Your task to perform on an android device: snooze an email in the gmail app Image 0: 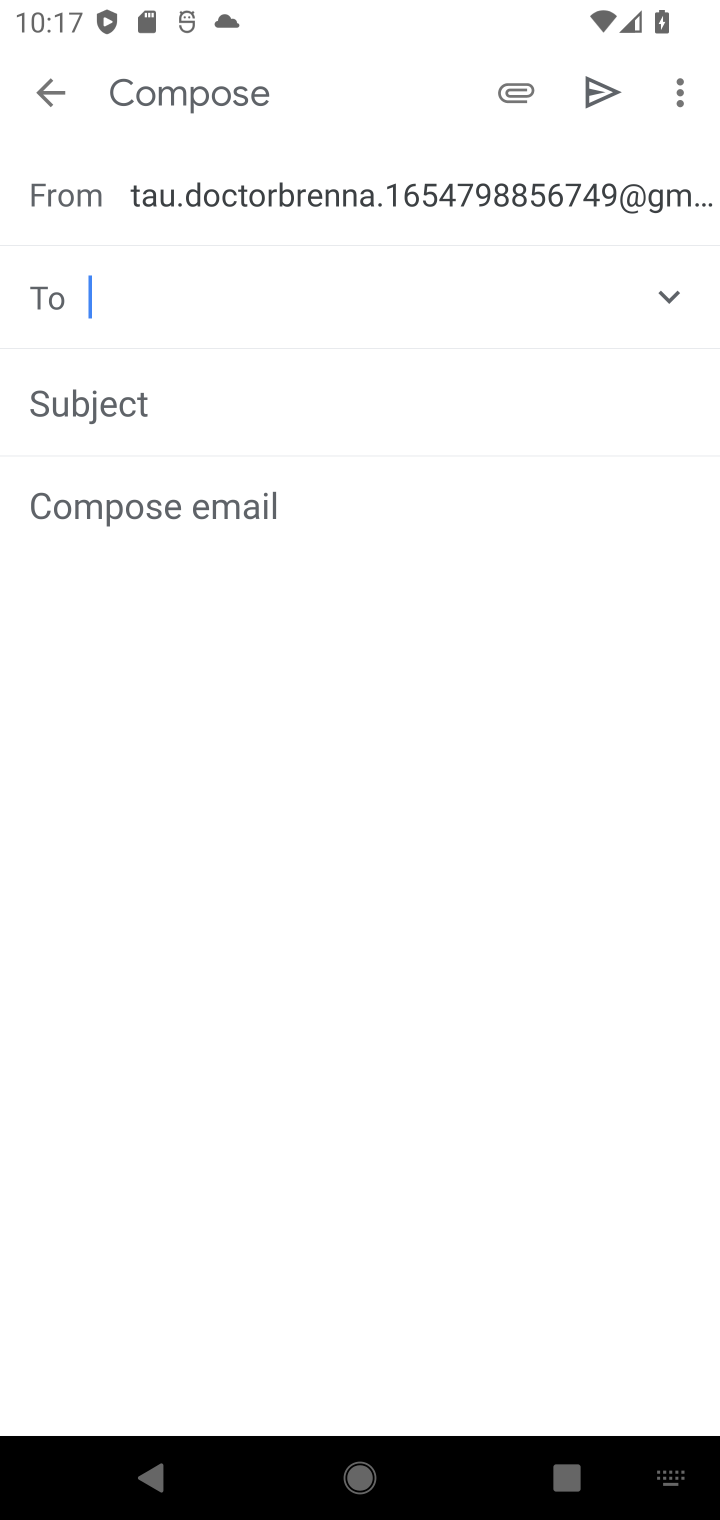
Step 0: press home button
Your task to perform on an android device: snooze an email in the gmail app Image 1: 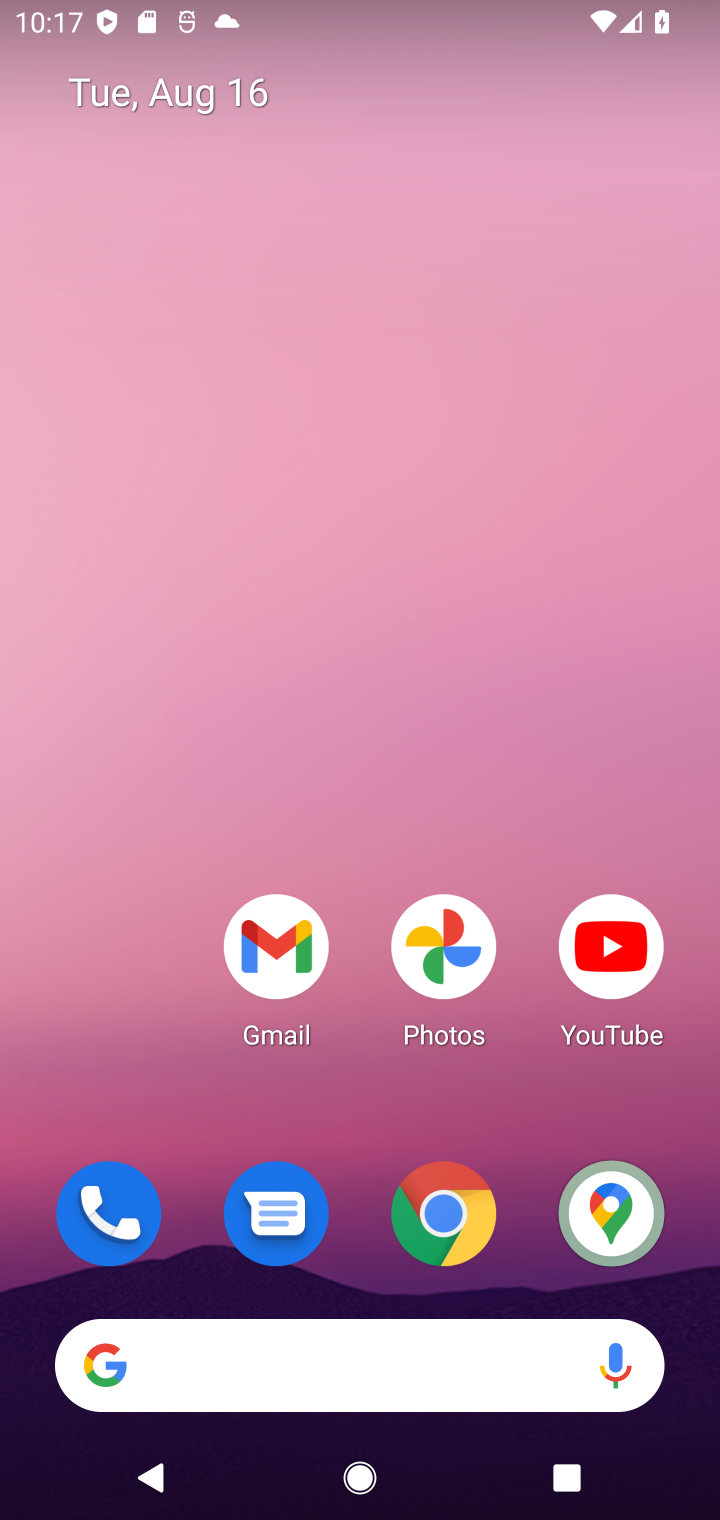
Step 1: drag from (285, 1220) to (276, 0)
Your task to perform on an android device: snooze an email in the gmail app Image 2: 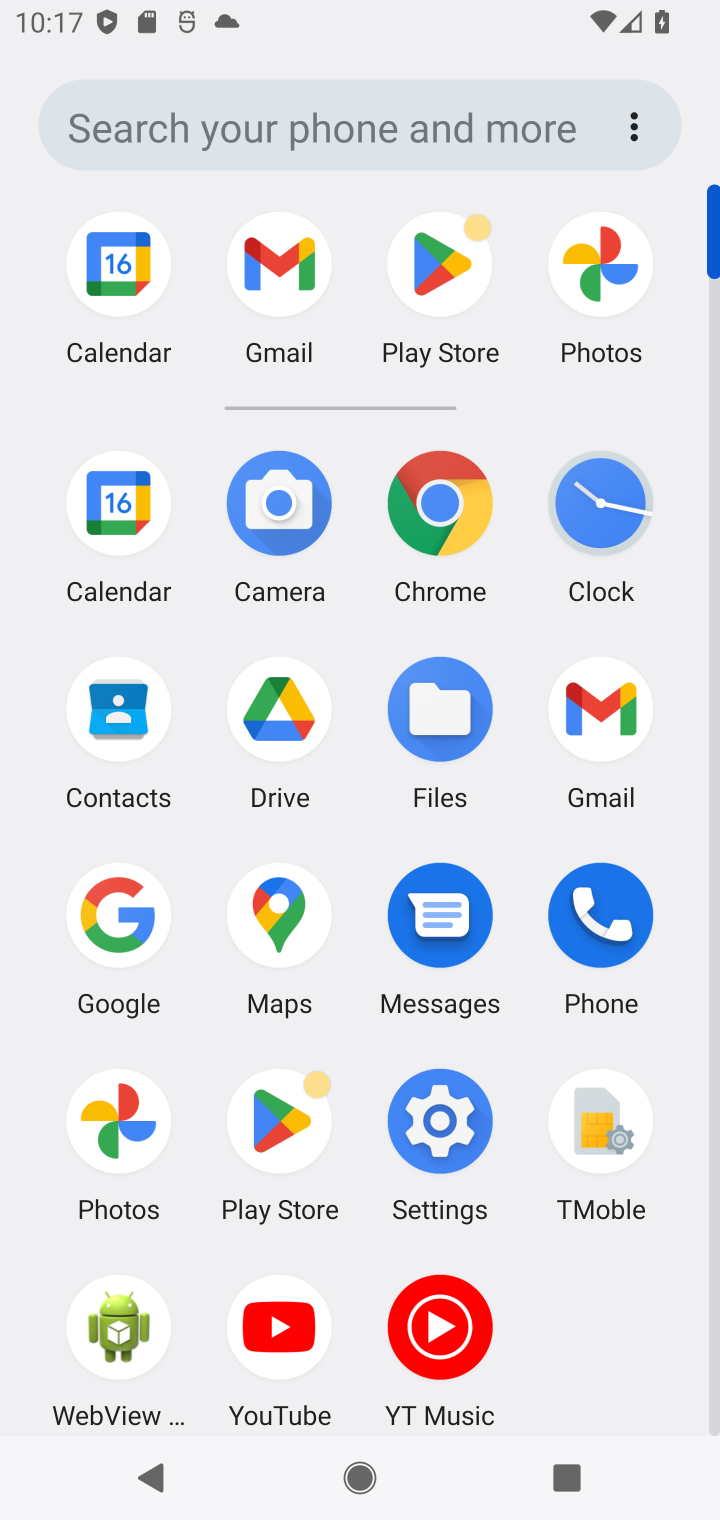
Step 2: click (616, 697)
Your task to perform on an android device: snooze an email in the gmail app Image 3: 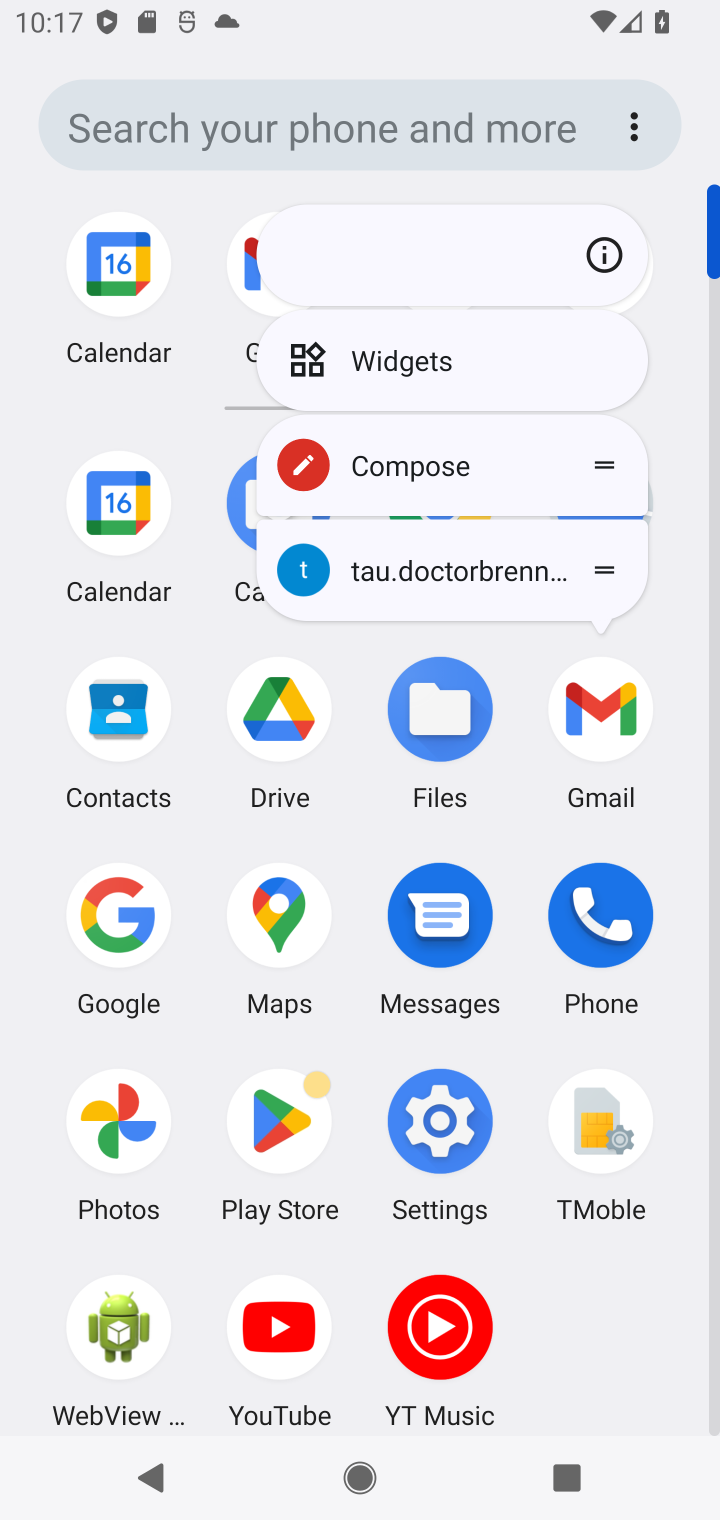
Step 3: click (621, 706)
Your task to perform on an android device: snooze an email in the gmail app Image 4: 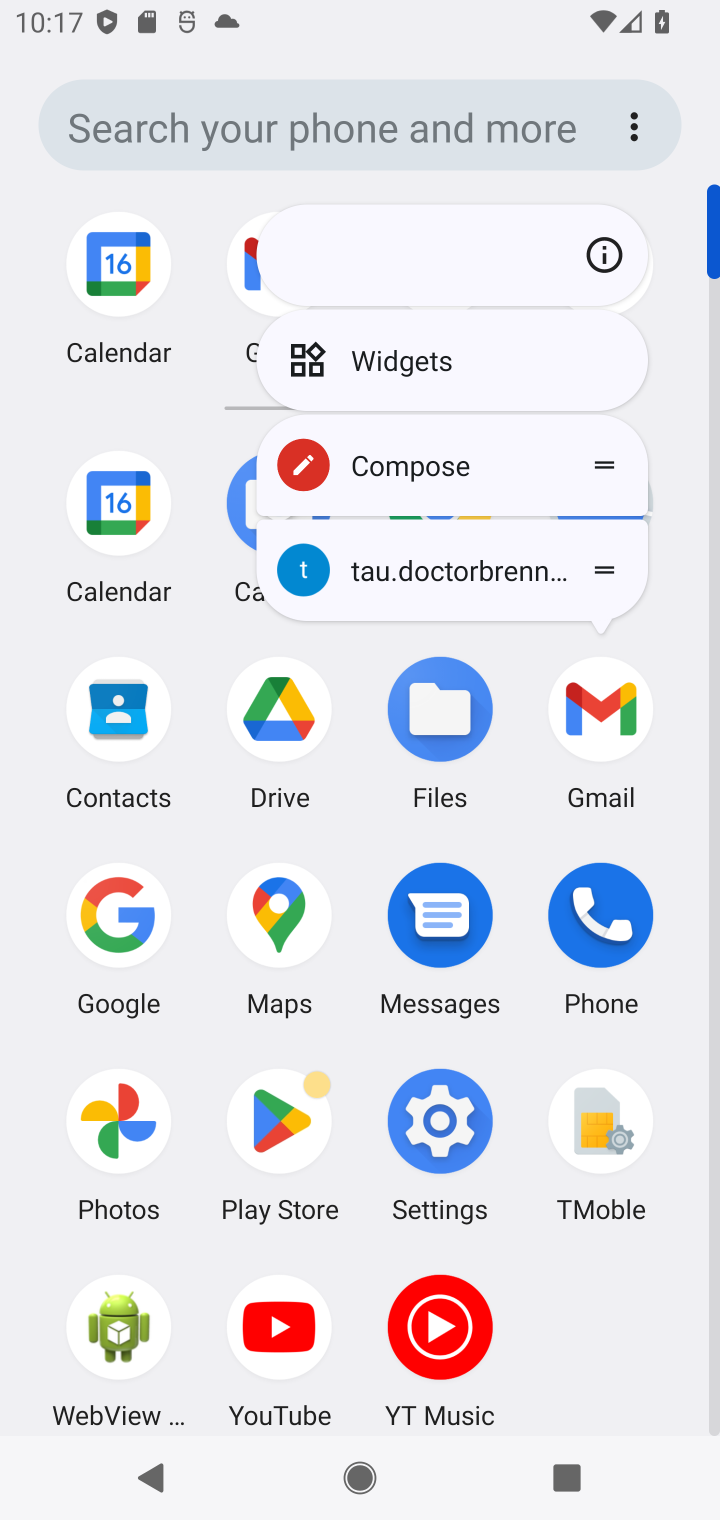
Step 4: click (602, 697)
Your task to perform on an android device: snooze an email in the gmail app Image 5: 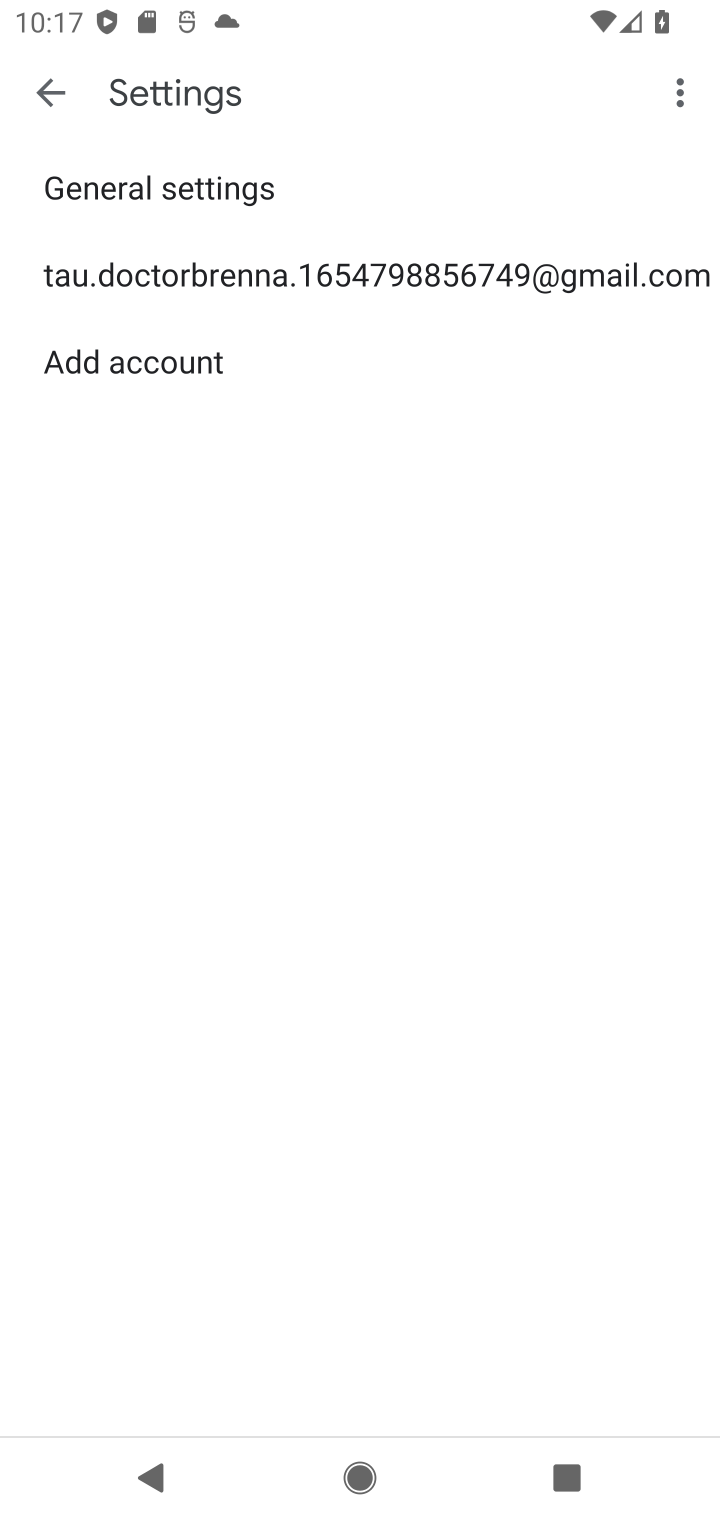
Step 5: click (53, 92)
Your task to perform on an android device: snooze an email in the gmail app Image 6: 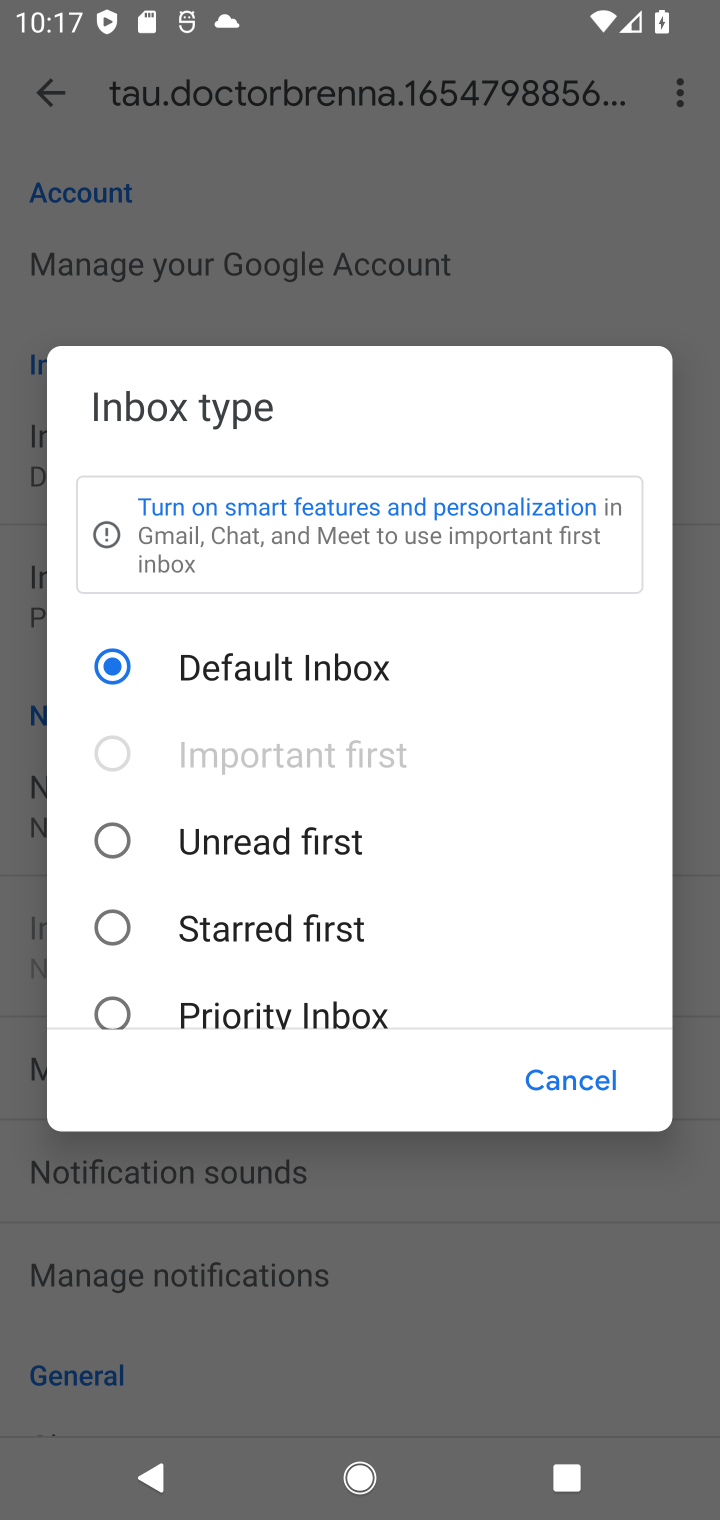
Step 6: click (616, 1092)
Your task to perform on an android device: snooze an email in the gmail app Image 7: 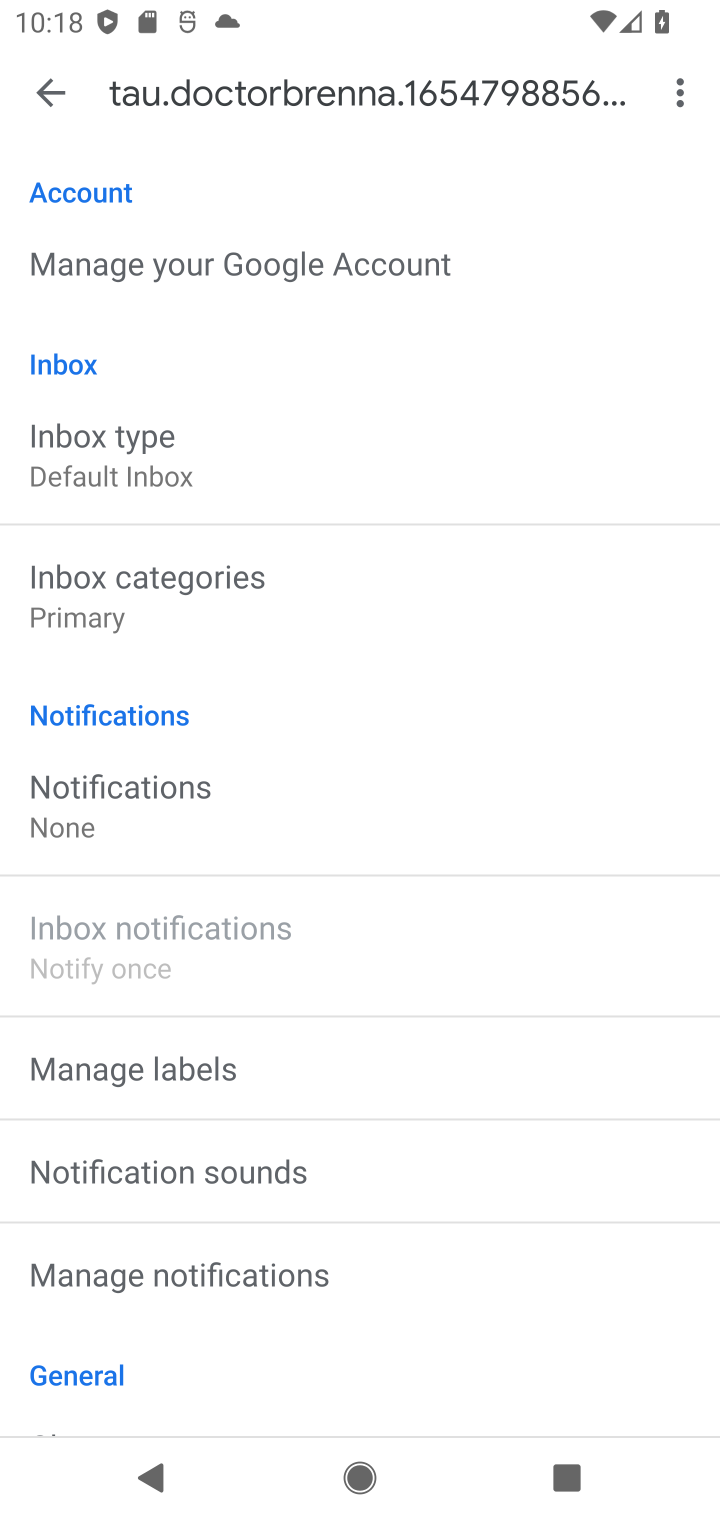
Step 7: drag from (181, 999) to (214, 1279)
Your task to perform on an android device: snooze an email in the gmail app Image 8: 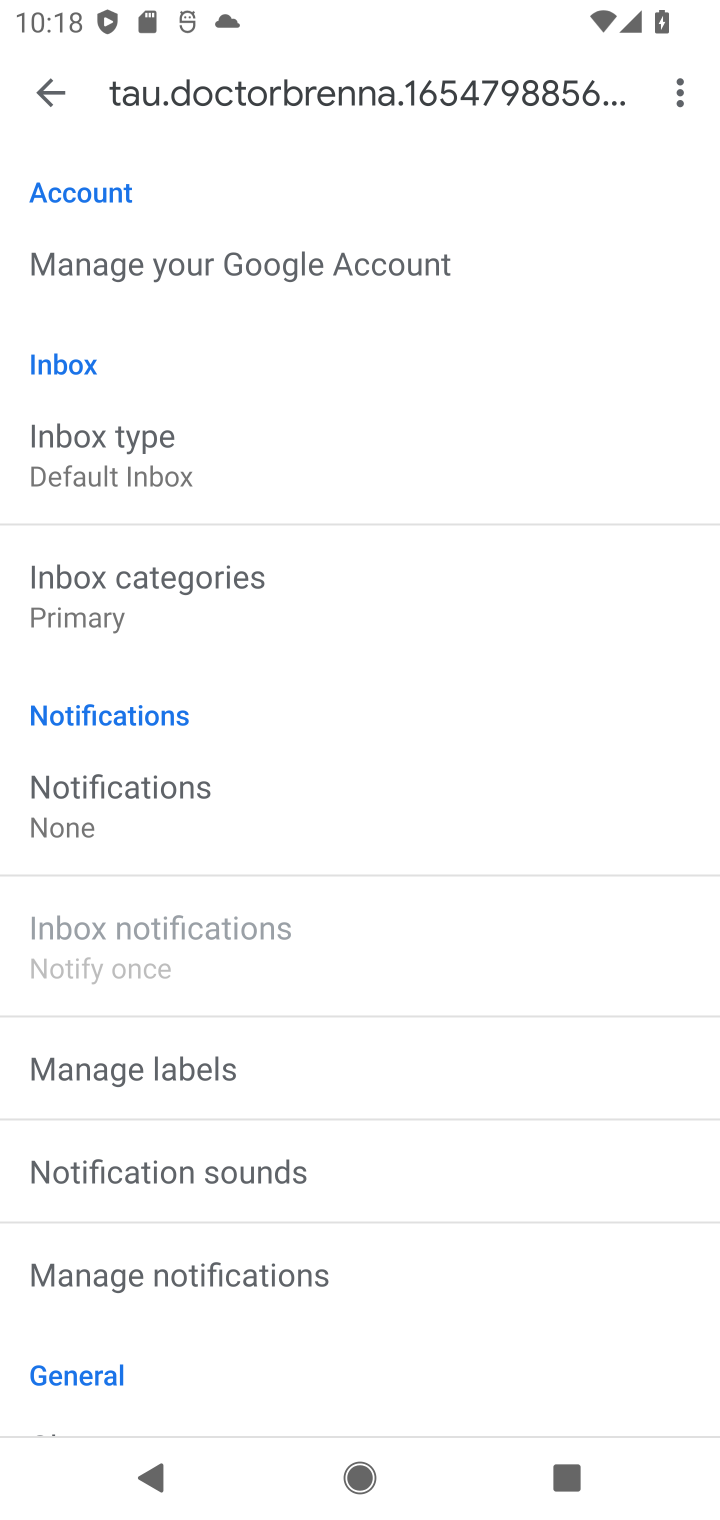
Step 8: click (49, 78)
Your task to perform on an android device: snooze an email in the gmail app Image 9: 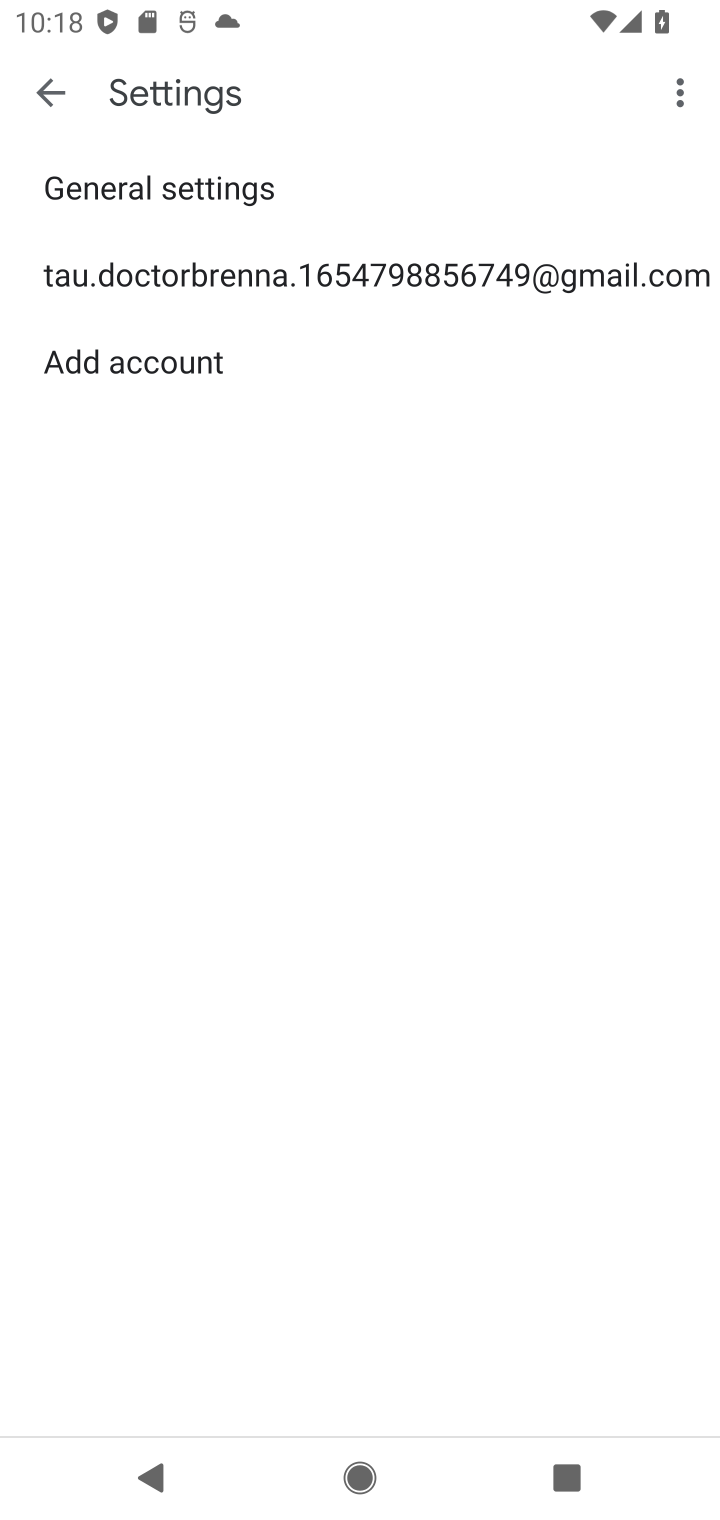
Step 9: click (62, 84)
Your task to perform on an android device: snooze an email in the gmail app Image 10: 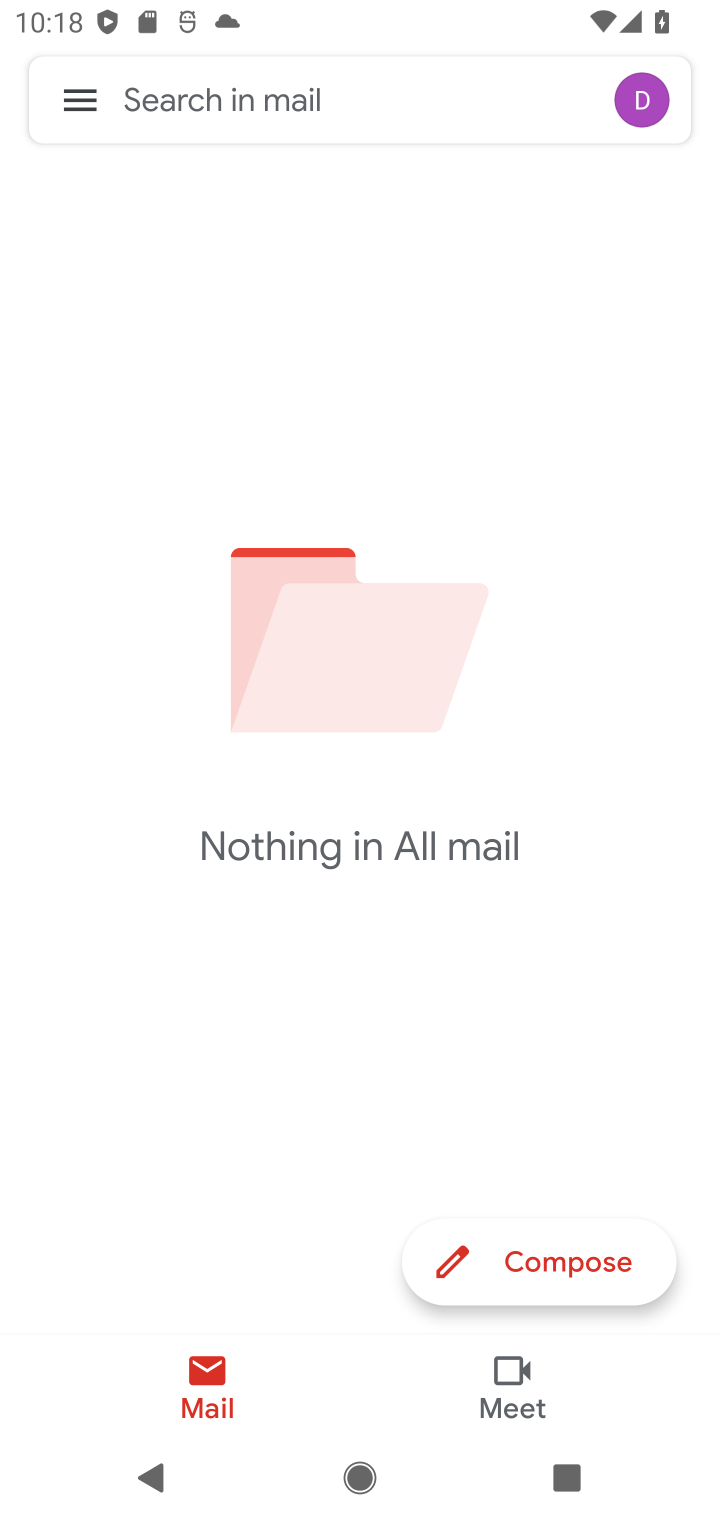
Step 10: click (83, 95)
Your task to perform on an android device: snooze an email in the gmail app Image 11: 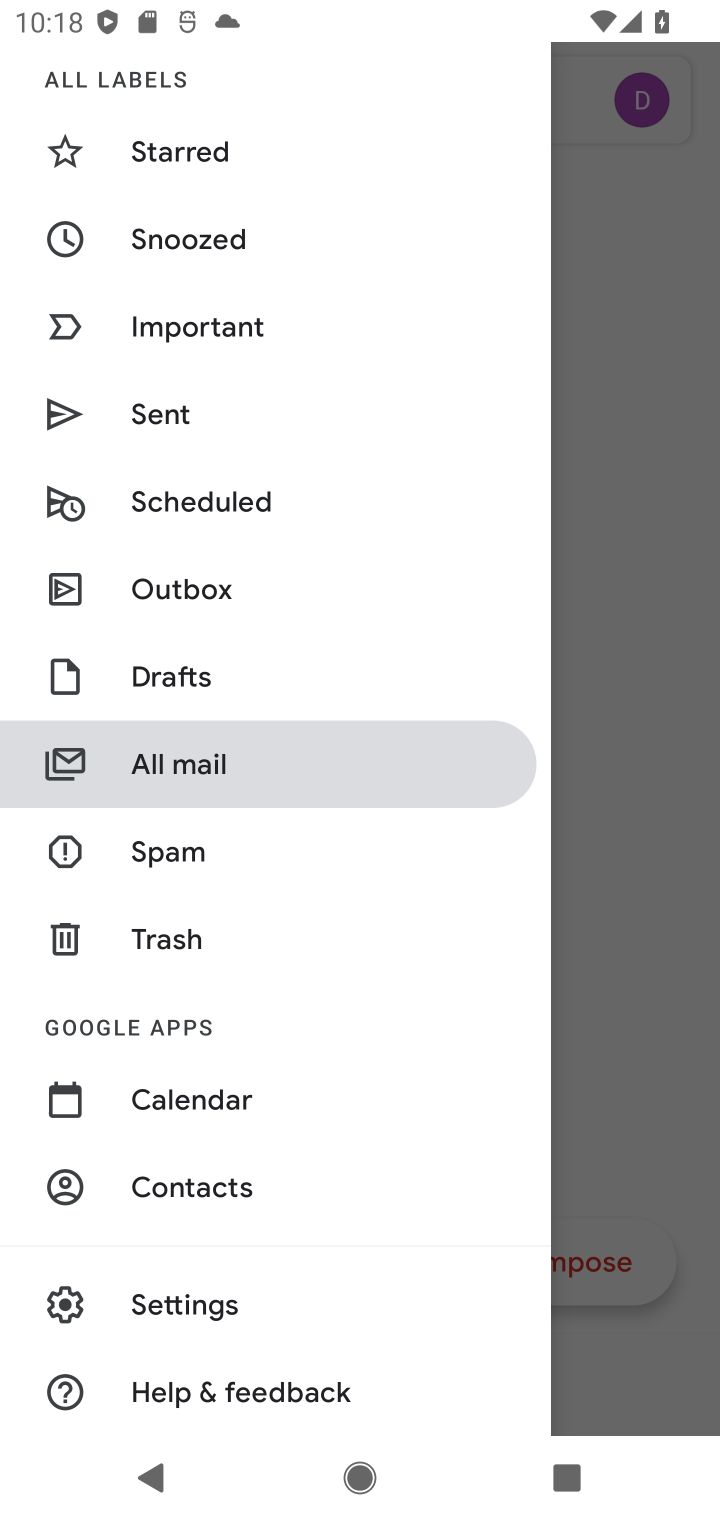
Step 11: click (240, 214)
Your task to perform on an android device: snooze an email in the gmail app Image 12: 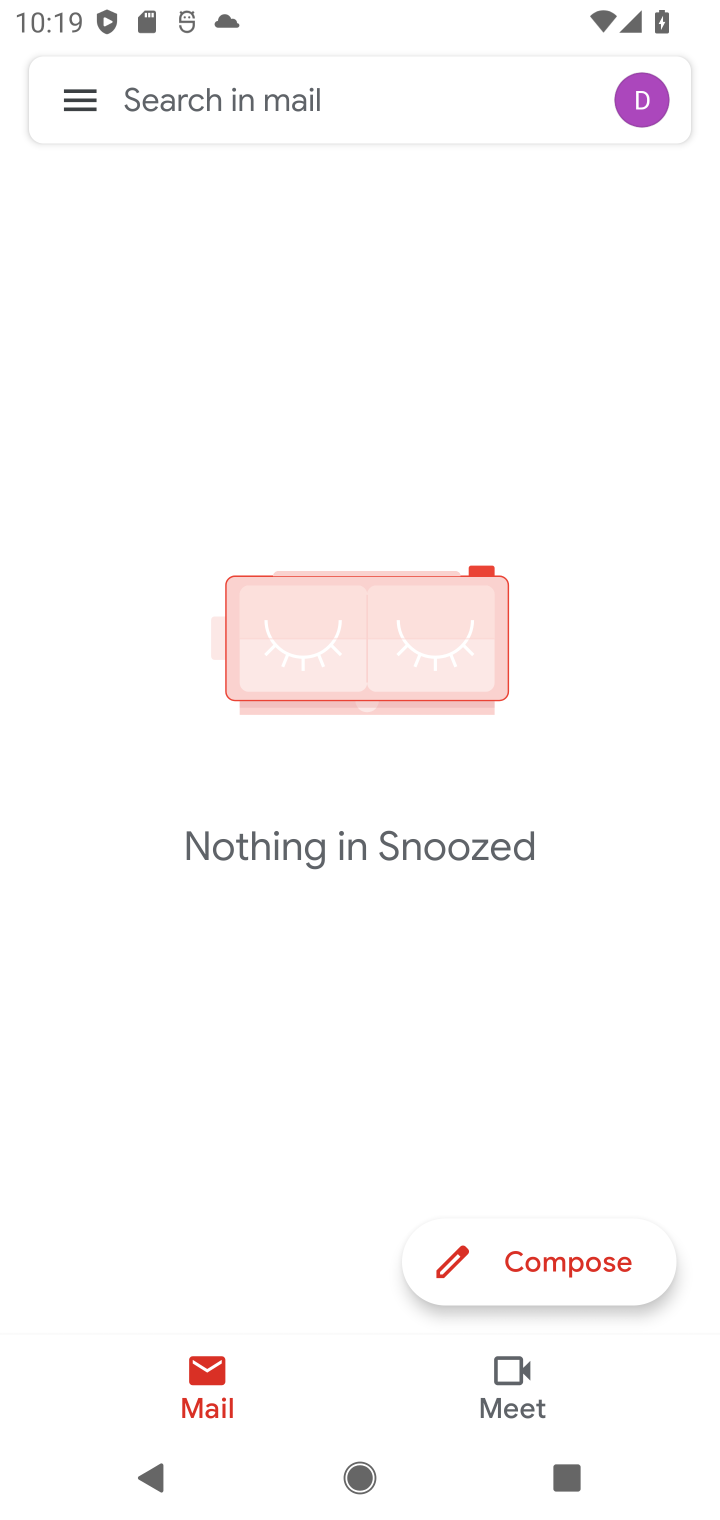
Step 12: task complete